Your task to perform on an android device: What's on my calendar today? Image 0: 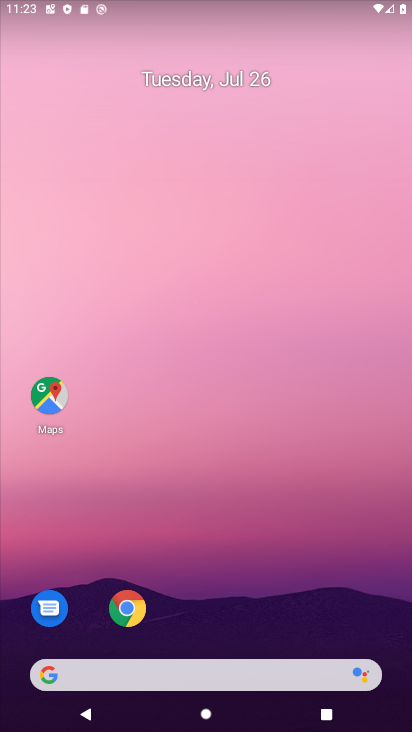
Step 0: drag from (302, 555) to (271, 143)
Your task to perform on an android device: What's on my calendar today? Image 1: 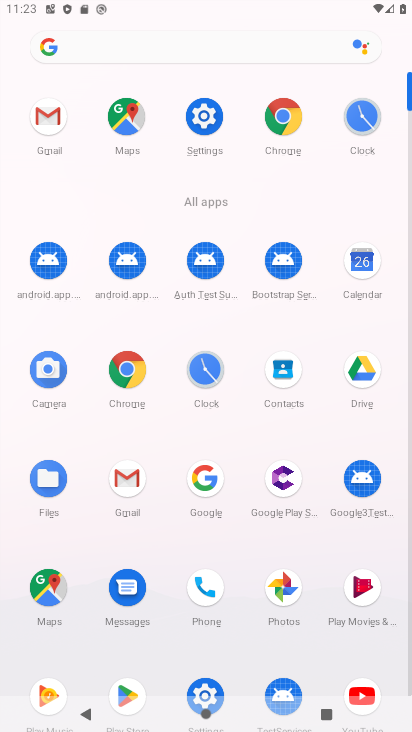
Step 1: click (355, 258)
Your task to perform on an android device: What's on my calendar today? Image 2: 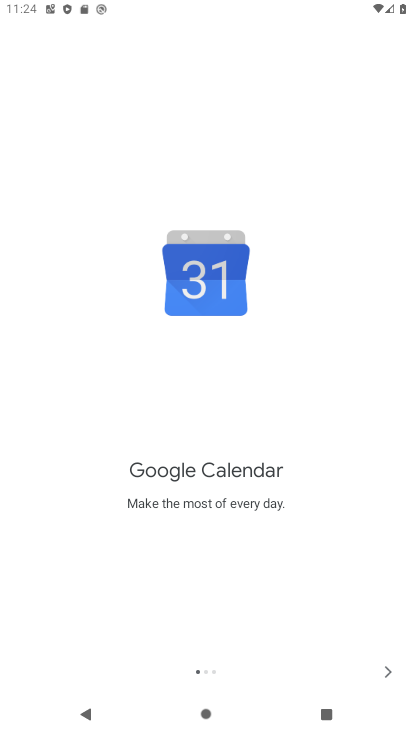
Step 2: click (385, 668)
Your task to perform on an android device: What's on my calendar today? Image 3: 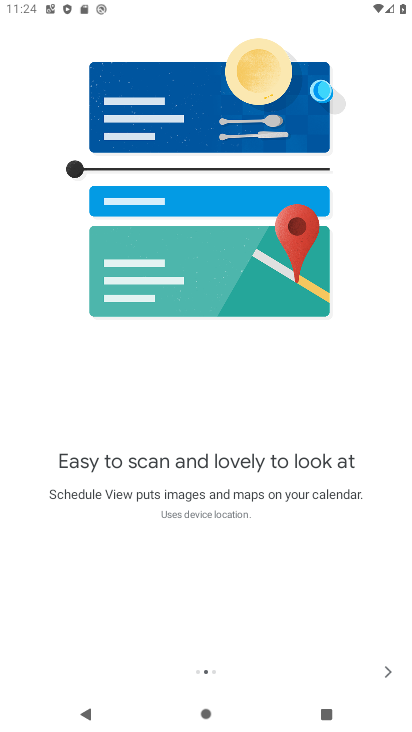
Step 3: click (385, 668)
Your task to perform on an android device: What's on my calendar today? Image 4: 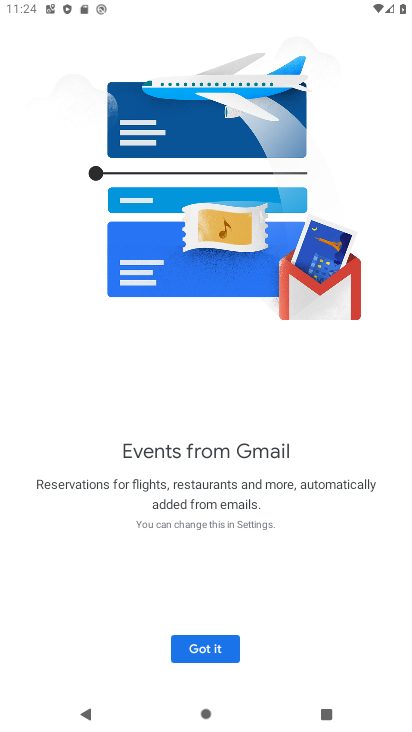
Step 4: click (212, 651)
Your task to perform on an android device: What's on my calendar today? Image 5: 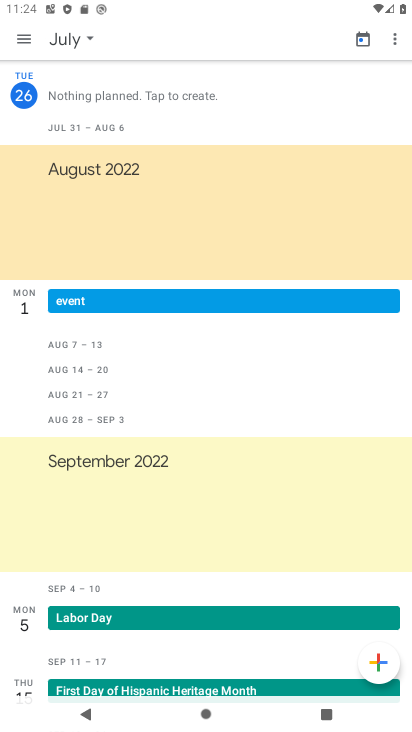
Step 5: click (61, 39)
Your task to perform on an android device: What's on my calendar today? Image 6: 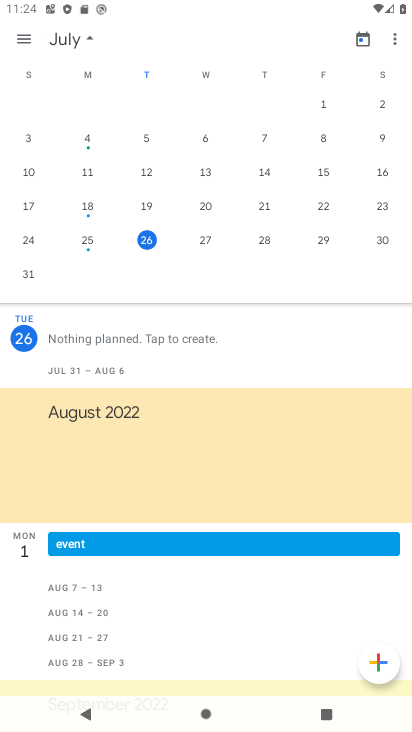
Step 6: click (148, 235)
Your task to perform on an android device: What's on my calendar today? Image 7: 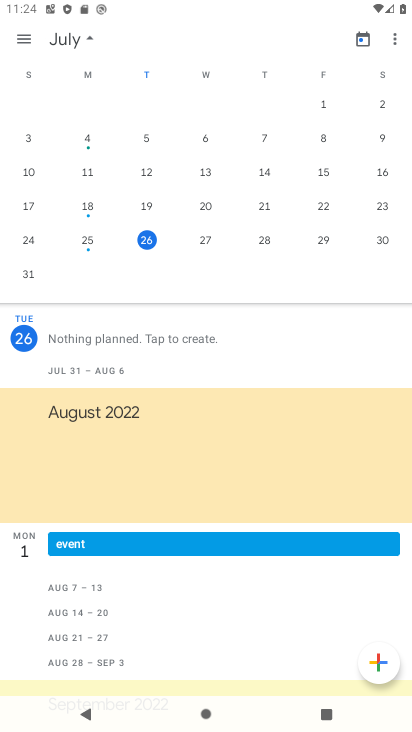
Step 7: task complete